Your task to perform on an android device: add a contact Image 0: 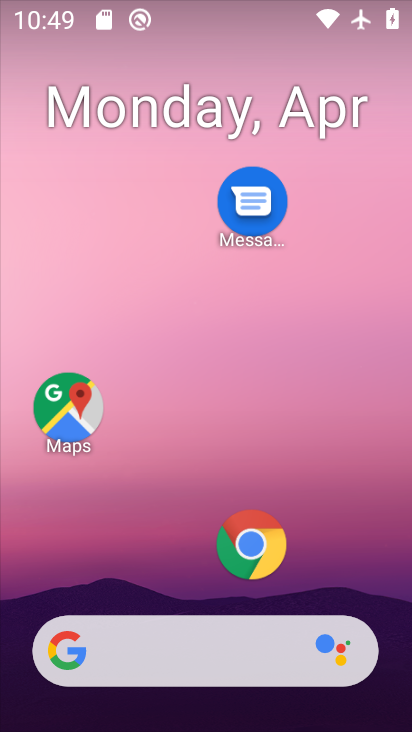
Step 0: press home button
Your task to perform on an android device: add a contact Image 1: 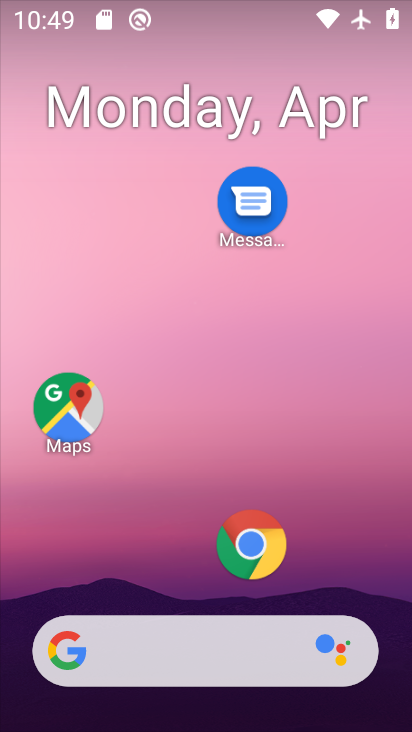
Step 1: drag from (207, 581) to (268, 53)
Your task to perform on an android device: add a contact Image 2: 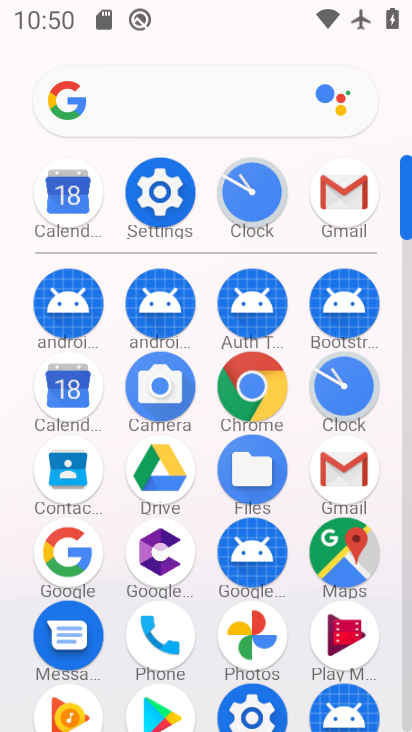
Step 2: drag from (202, 599) to (209, 145)
Your task to perform on an android device: add a contact Image 3: 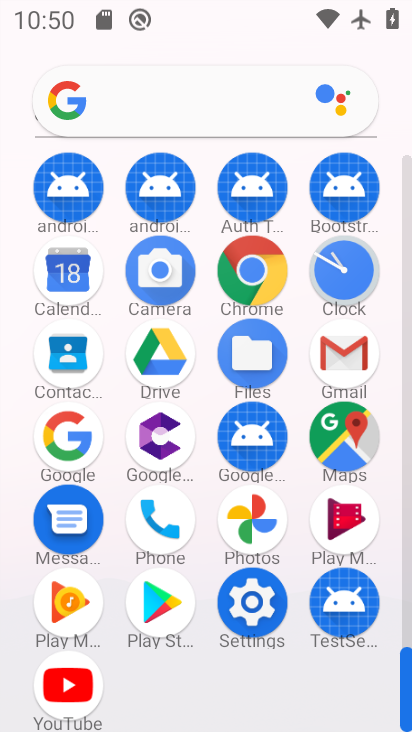
Step 3: click (69, 352)
Your task to perform on an android device: add a contact Image 4: 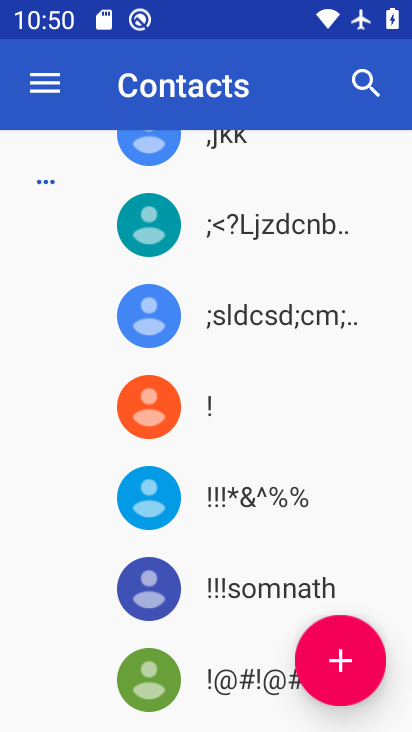
Step 4: click (333, 665)
Your task to perform on an android device: add a contact Image 5: 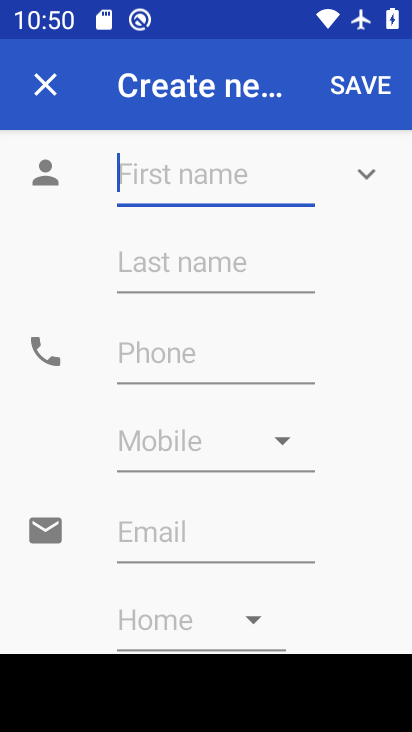
Step 5: type "nvhgfh"
Your task to perform on an android device: add a contact Image 6: 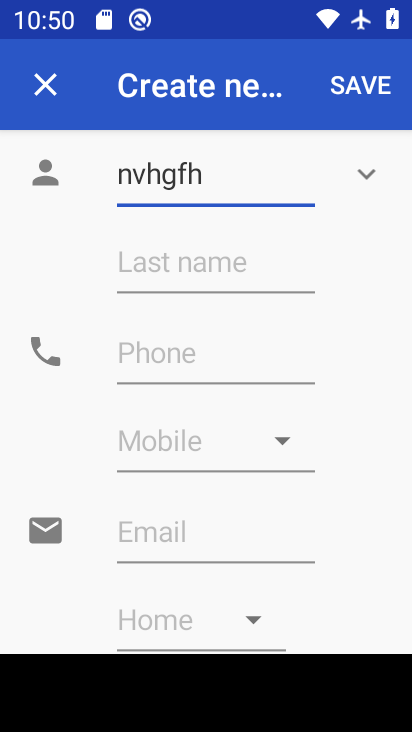
Step 6: click (380, 89)
Your task to perform on an android device: add a contact Image 7: 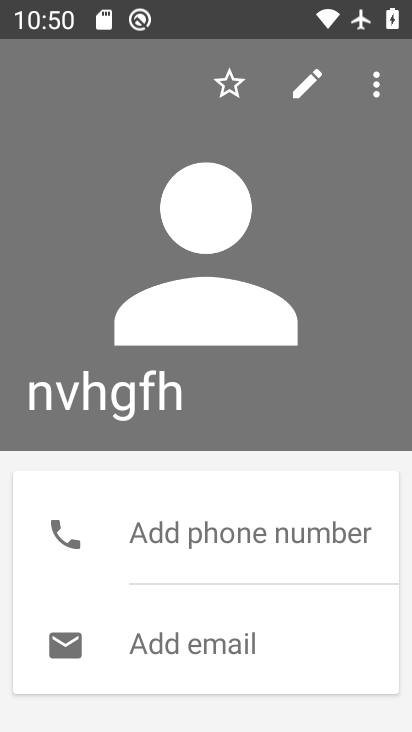
Step 7: task complete